Your task to perform on an android device: turn off notifications in google photos Image 0: 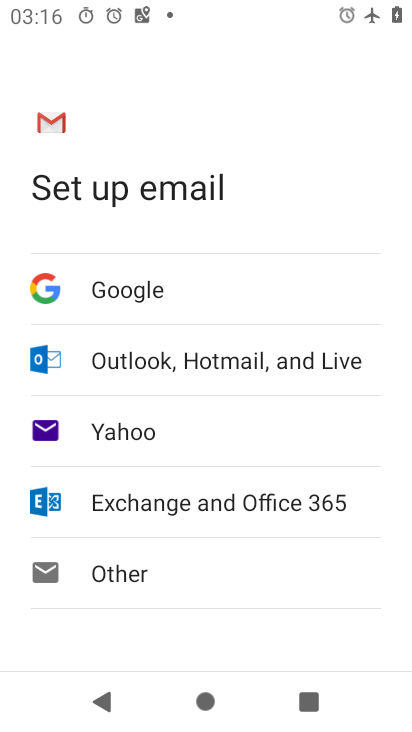
Step 0: press home button
Your task to perform on an android device: turn off notifications in google photos Image 1: 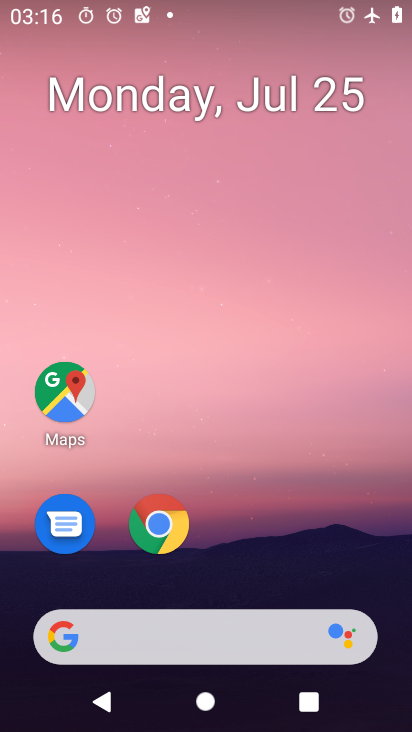
Step 1: drag from (244, 573) to (242, 161)
Your task to perform on an android device: turn off notifications in google photos Image 2: 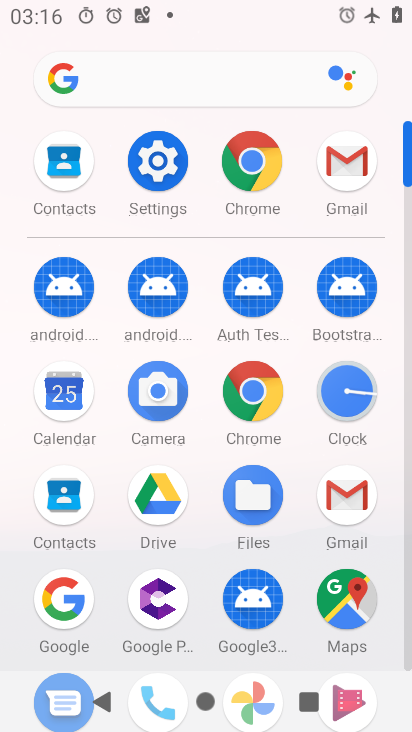
Step 2: drag from (301, 562) to (292, 79)
Your task to perform on an android device: turn off notifications in google photos Image 3: 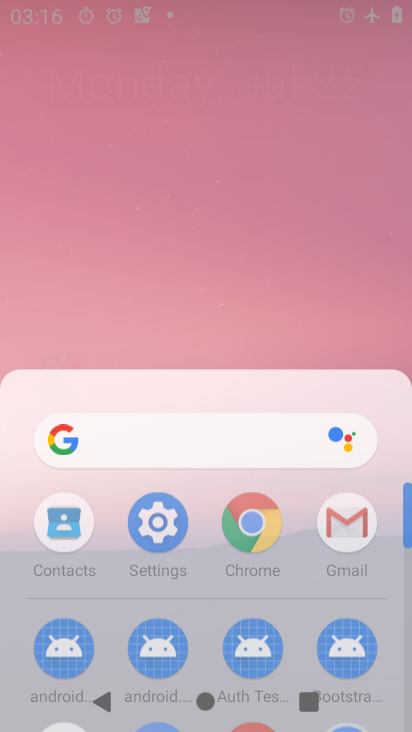
Step 3: drag from (205, 283) to (219, 7)
Your task to perform on an android device: turn off notifications in google photos Image 4: 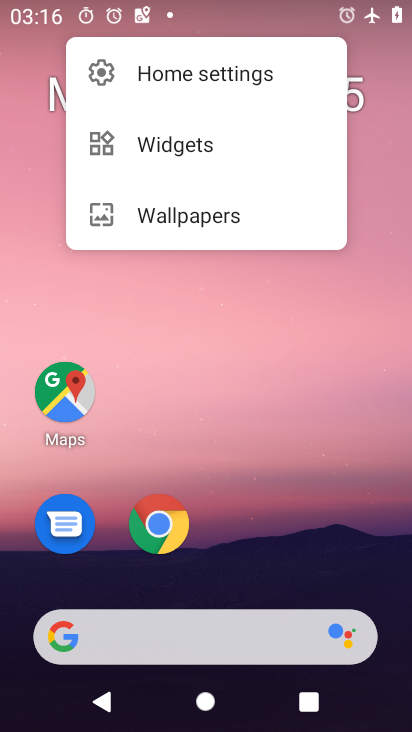
Step 4: click (299, 526)
Your task to perform on an android device: turn off notifications in google photos Image 5: 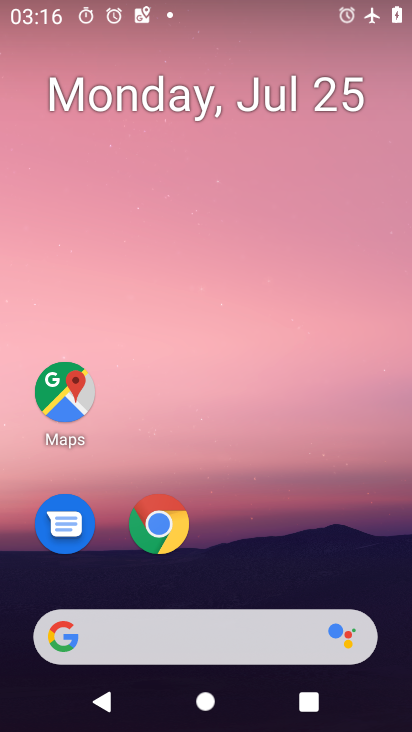
Step 5: drag from (306, 576) to (316, 7)
Your task to perform on an android device: turn off notifications in google photos Image 6: 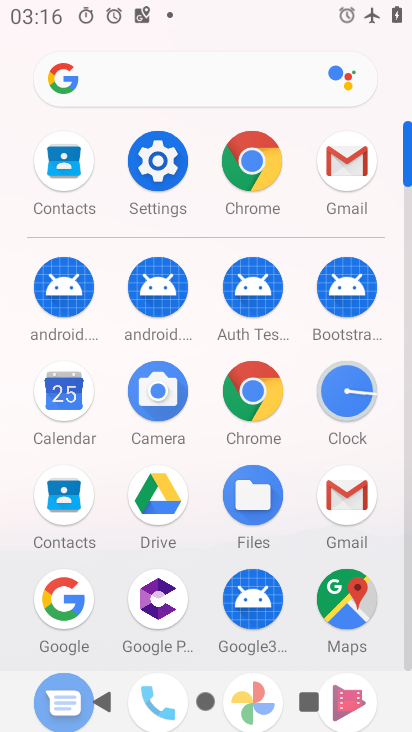
Step 6: drag from (199, 557) to (224, 33)
Your task to perform on an android device: turn off notifications in google photos Image 7: 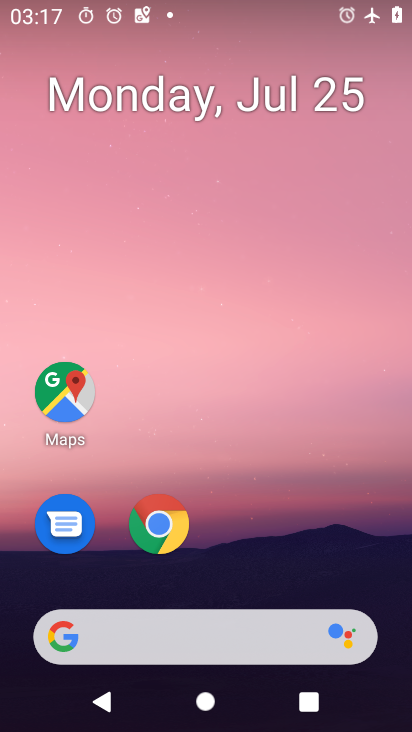
Step 7: drag from (275, 573) to (294, 8)
Your task to perform on an android device: turn off notifications in google photos Image 8: 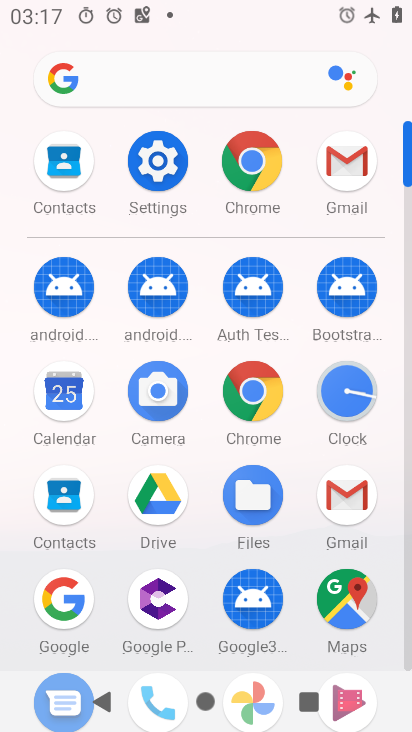
Step 8: drag from (307, 563) to (313, 14)
Your task to perform on an android device: turn off notifications in google photos Image 9: 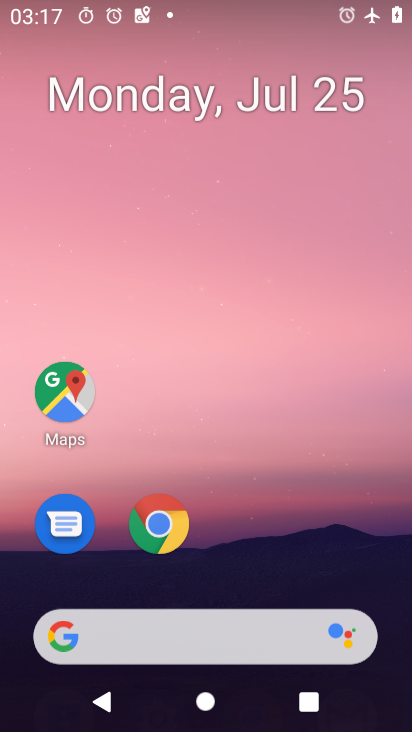
Step 9: drag from (293, 572) to (254, 38)
Your task to perform on an android device: turn off notifications in google photos Image 10: 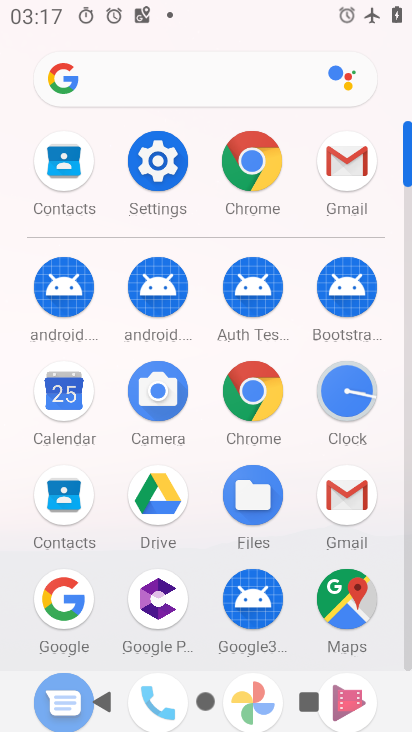
Step 10: drag from (301, 536) to (336, 13)
Your task to perform on an android device: turn off notifications in google photos Image 11: 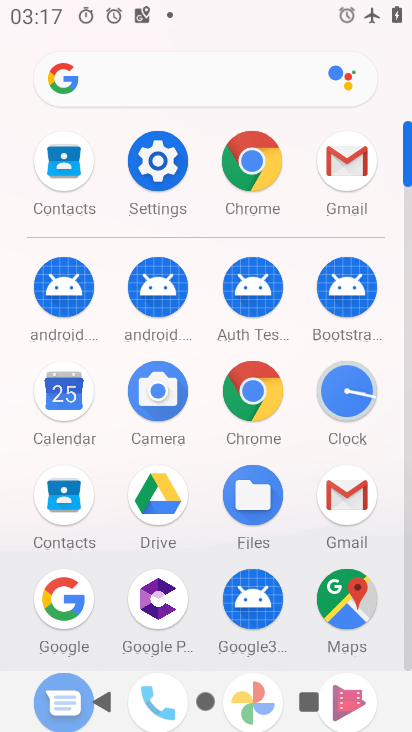
Step 11: drag from (295, 557) to (316, 7)
Your task to perform on an android device: turn off notifications in google photos Image 12: 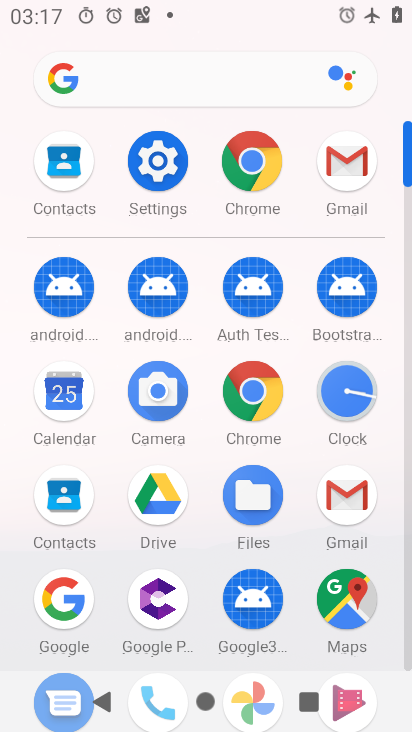
Step 12: click (256, 696)
Your task to perform on an android device: turn off notifications in google photos Image 13: 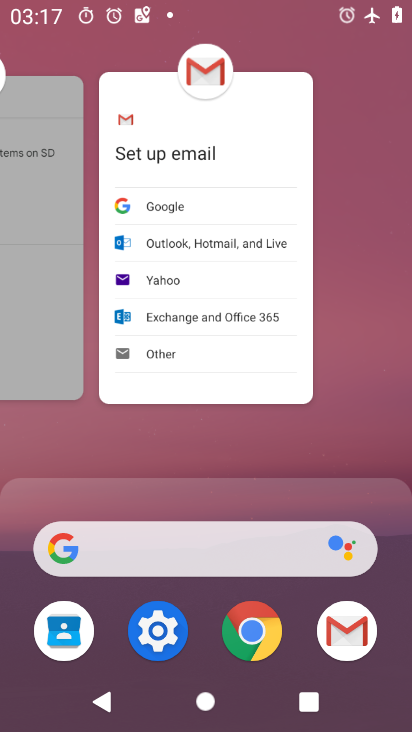
Step 13: click (352, 412)
Your task to perform on an android device: turn off notifications in google photos Image 14: 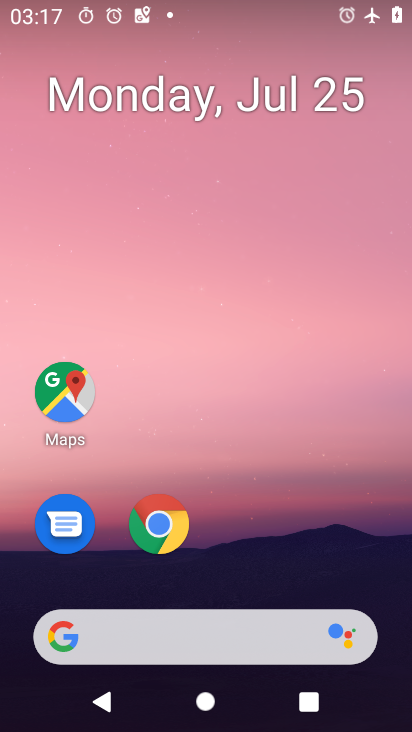
Step 14: task complete